Your task to perform on an android device: Go to wifi settings Image 0: 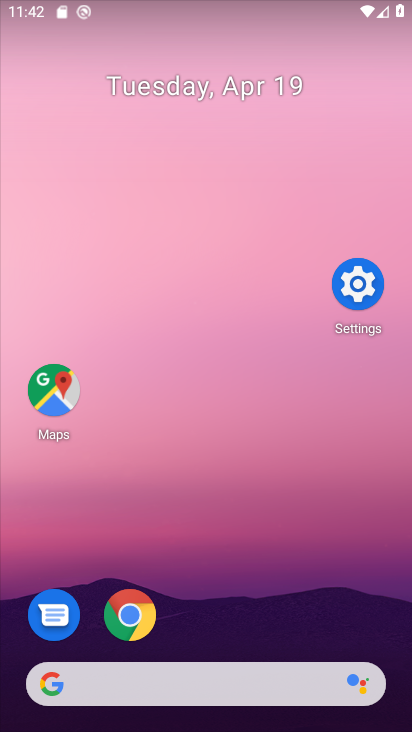
Step 0: drag from (214, 562) to (355, 162)
Your task to perform on an android device: Go to wifi settings Image 1: 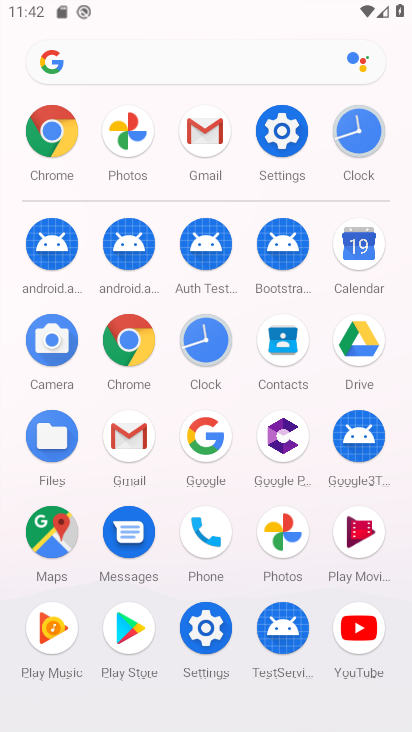
Step 1: click (288, 127)
Your task to perform on an android device: Go to wifi settings Image 2: 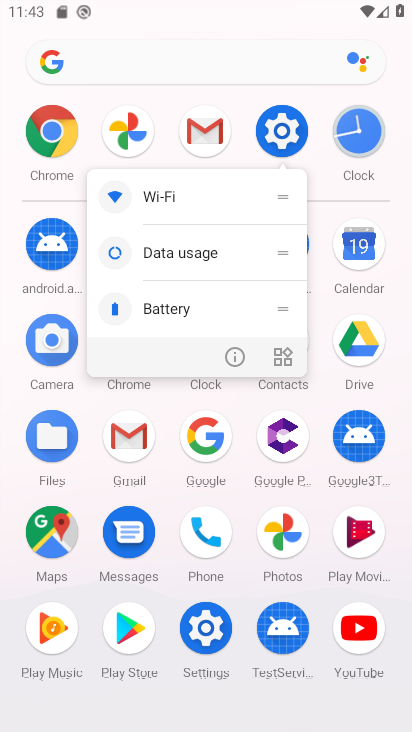
Step 2: click (240, 349)
Your task to perform on an android device: Go to wifi settings Image 3: 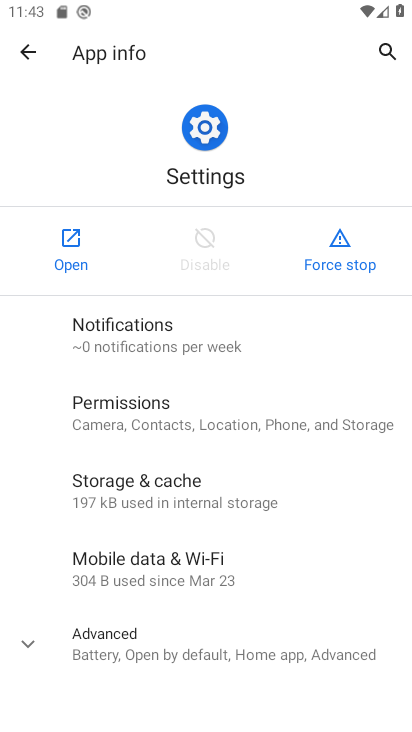
Step 3: click (93, 263)
Your task to perform on an android device: Go to wifi settings Image 4: 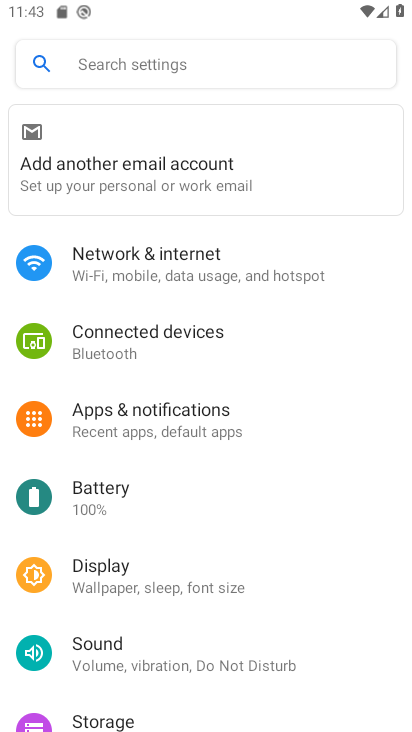
Step 4: click (128, 221)
Your task to perform on an android device: Go to wifi settings Image 5: 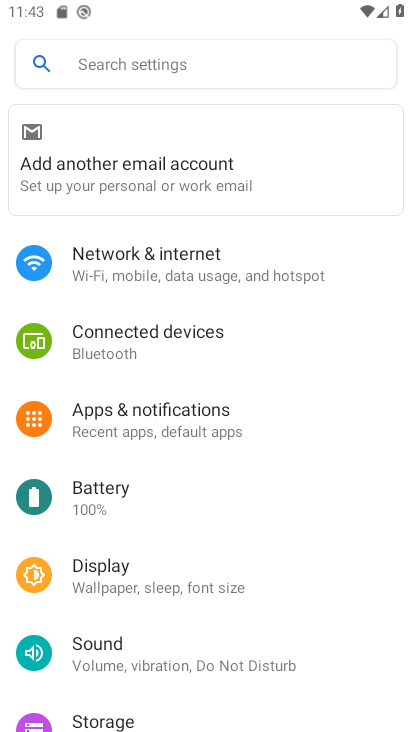
Step 5: click (174, 241)
Your task to perform on an android device: Go to wifi settings Image 6: 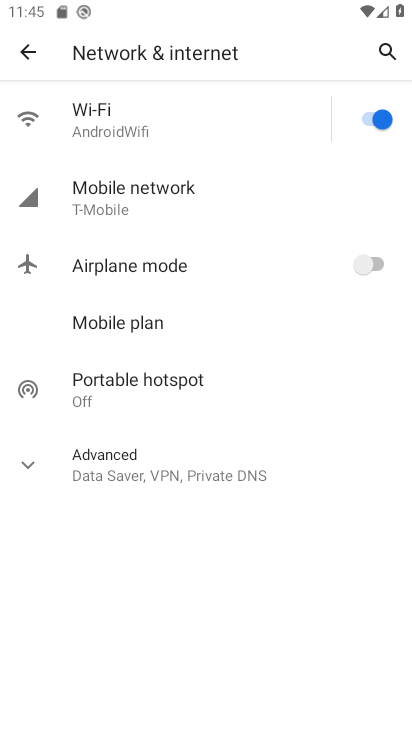
Step 6: click (174, 118)
Your task to perform on an android device: Go to wifi settings Image 7: 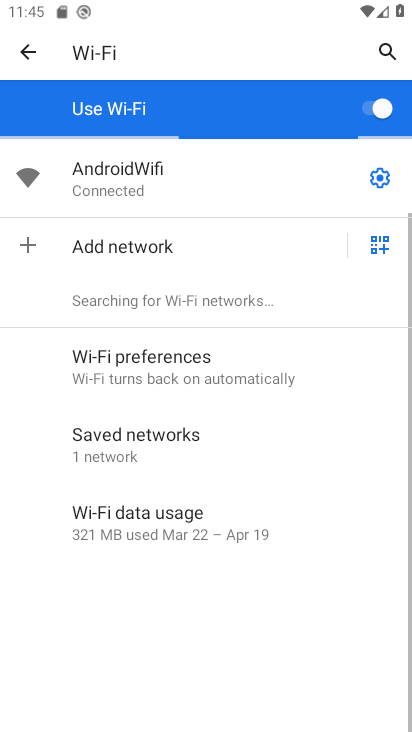
Step 7: task complete